Your task to perform on an android device: Go to Yahoo.com Image 0: 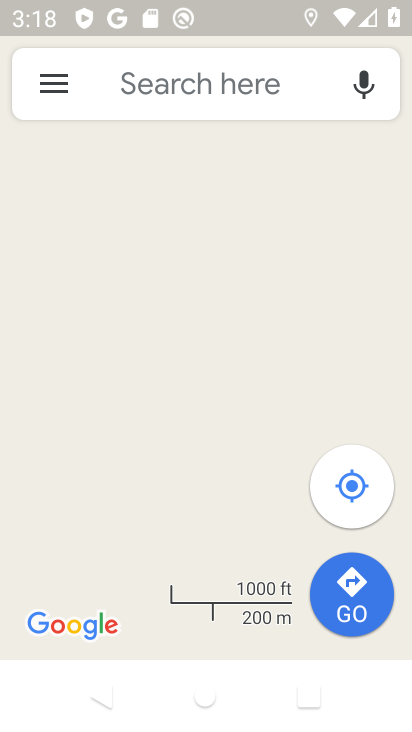
Step 0: press home button
Your task to perform on an android device: Go to Yahoo.com Image 1: 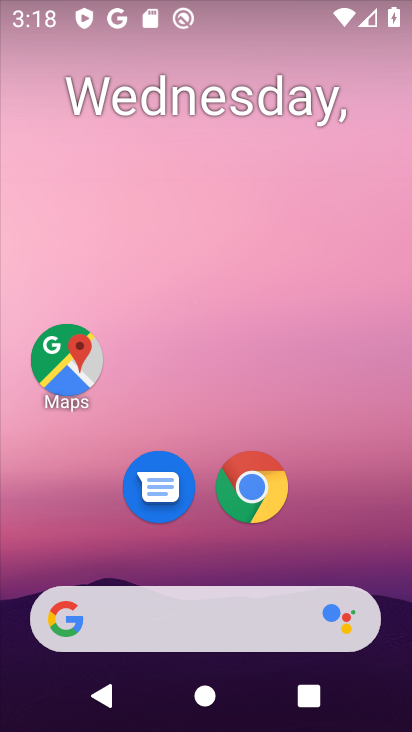
Step 1: click (254, 504)
Your task to perform on an android device: Go to Yahoo.com Image 2: 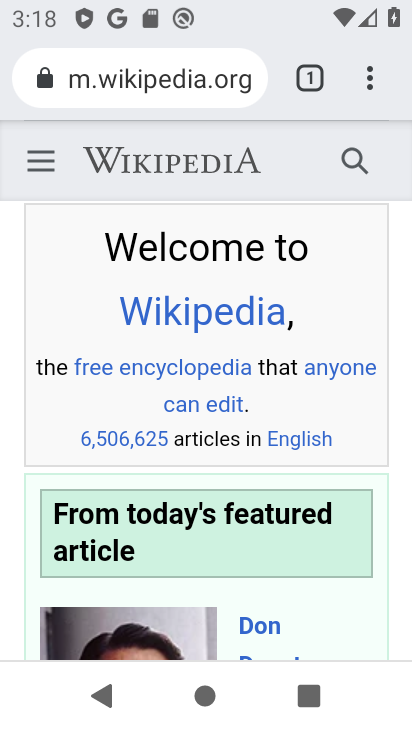
Step 2: click (302, 93)
Your task to perform on an android device: Go to Yahoo.com Image 3: 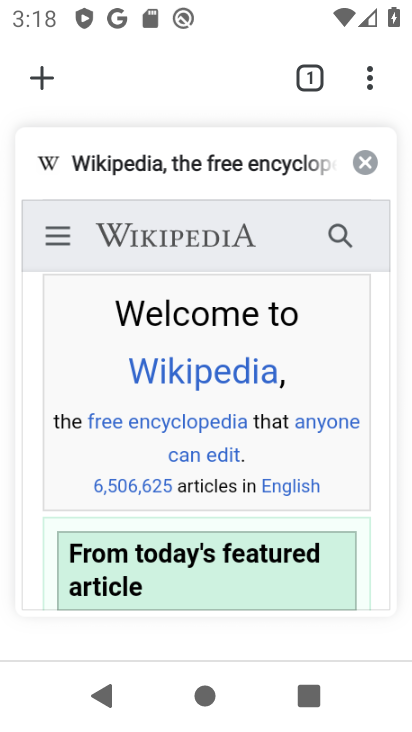
Step 3: click (367, 169)
Your task to perform on an android device: Go to Yahoo.com Image 4: 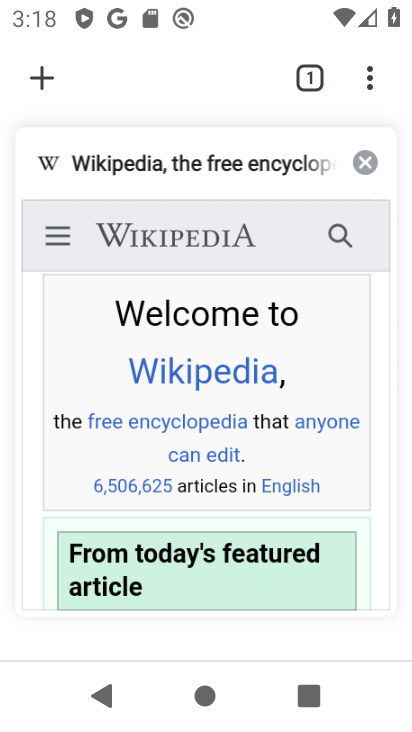
Step 4: click (361, 174)
Your task to perform on an android device: Go to Yahoo.com Image 5: 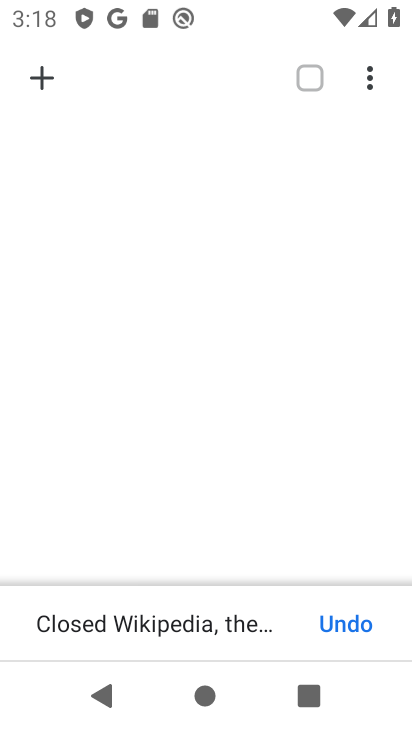
Step 5: click (36, 80)
Your task to perform on an android device: Go to Yahoo.com Image 6: 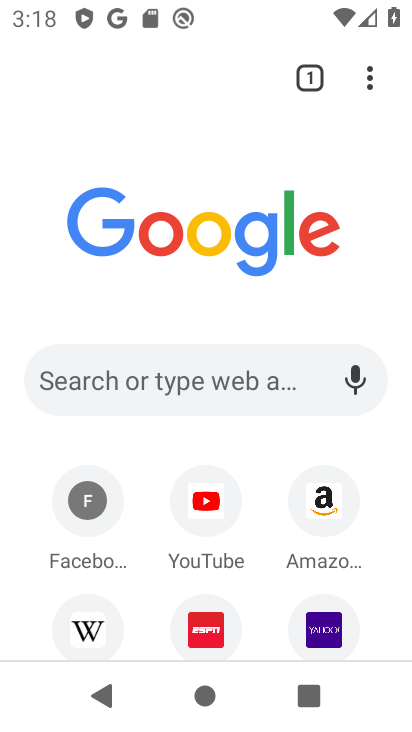
Step 6: click (322, 632)
Your task to perform on an android device: Go to Yahoo.com Image 7: 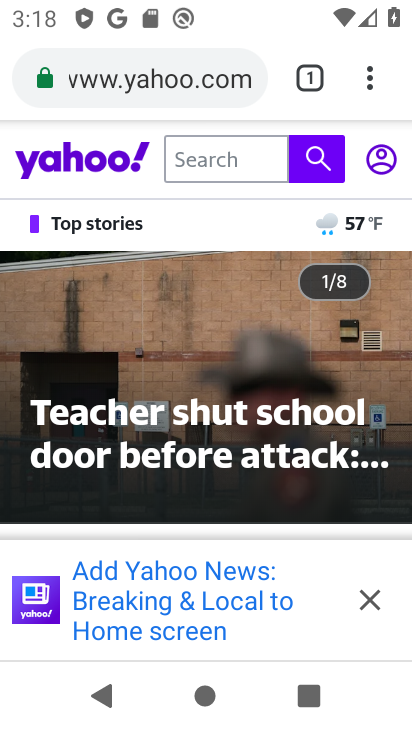
Step 7: task complete